Your task to perform on an android device: Play the last video I watched on Youtube Image 0: 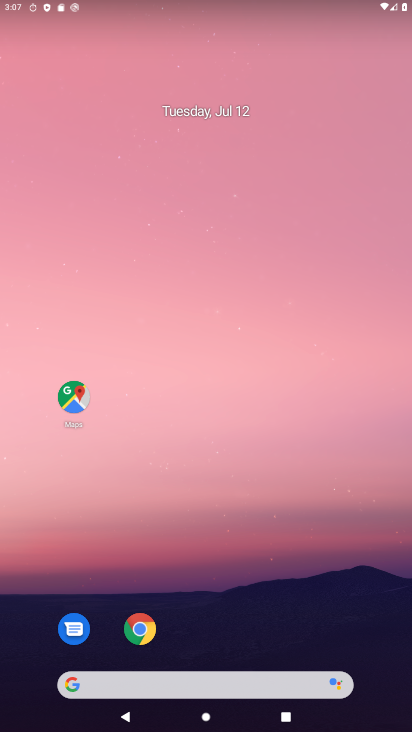
Step 0: drag from (231, 589) to (292, 91)
Your task to perform on an android device: Play the last video I watched on Youtube Image 1: 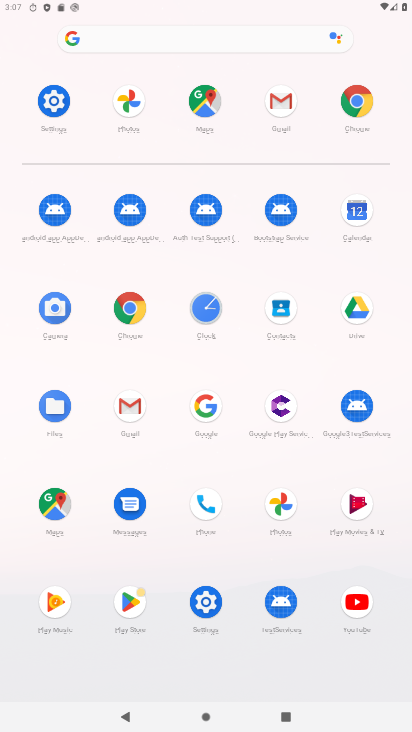
Step 1: click (342, 604)
Your task to perform on an android device: Play the last video I watched on Youtube Image 2: 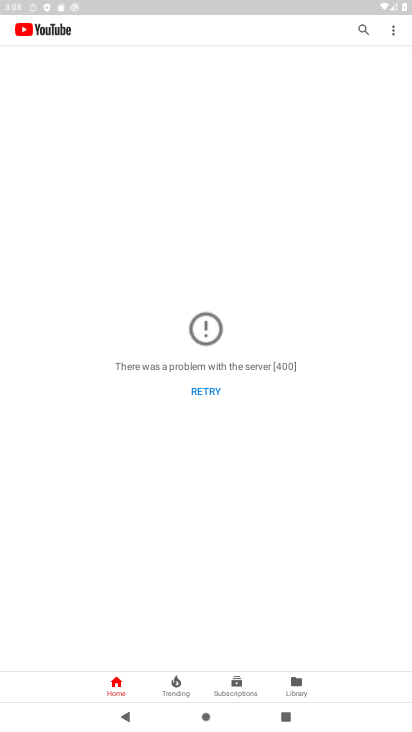
Step 2: task complete